Your task to perform on an android device: open app "WhatsApp Messenger" Image 0: 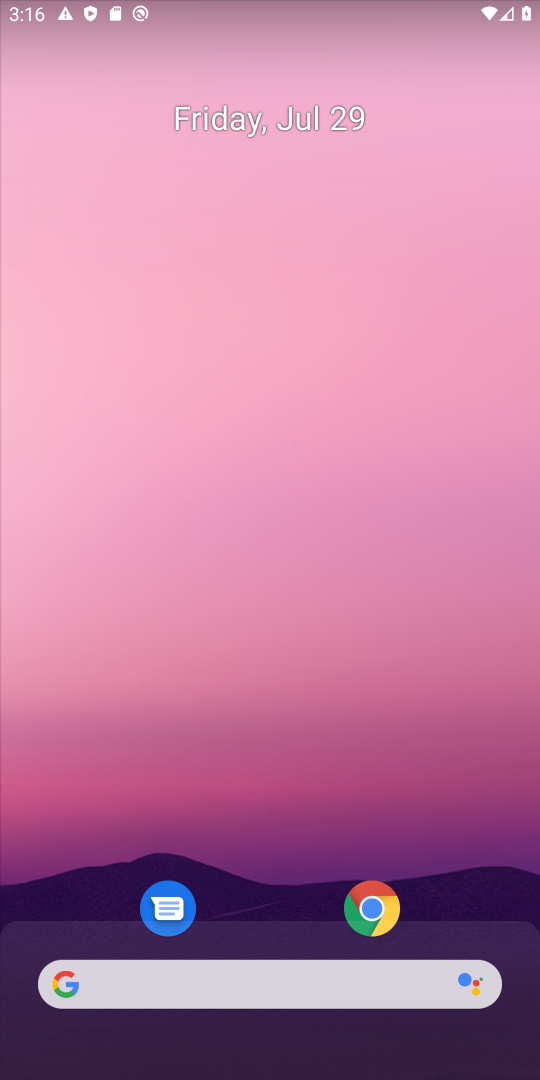
Step 0: drag from (281, 996) to (223, 268)
Your task to perform on an android device: open app "WhatsApp Messenger" Image 1: 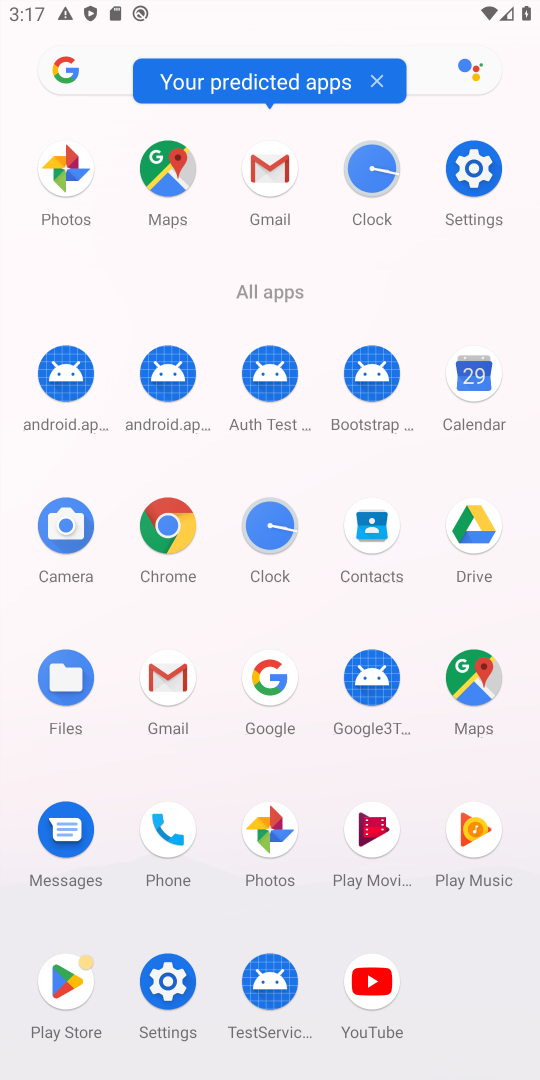
Step 1: click (50, 997)
Your task to perform on an android device: open app "WhatsApp Messenger" Image 2: 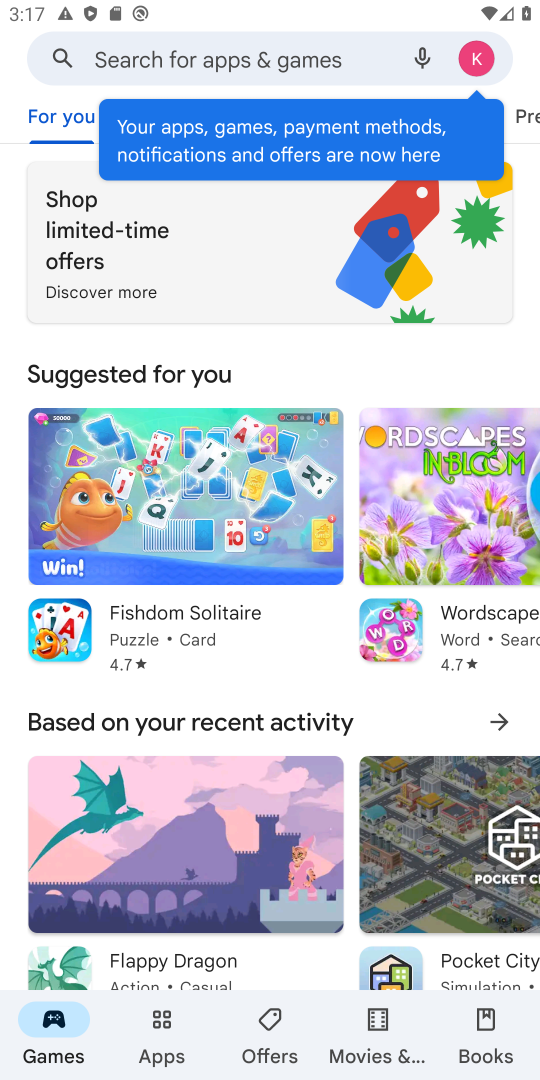
Step 2: click (292, 60)
Your task to perform on an android device: open app "WhatsApp Messenger" Image 3: 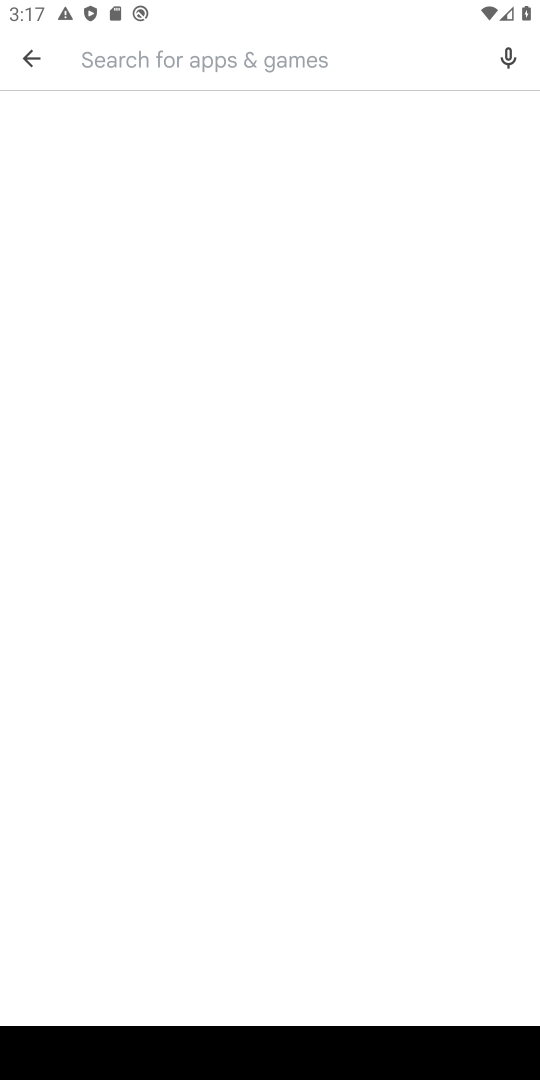
Step 3: type "WhatsApp Messenger"
Your task to perform on an android device: open app "WhatsApp Messenger" Image 4: 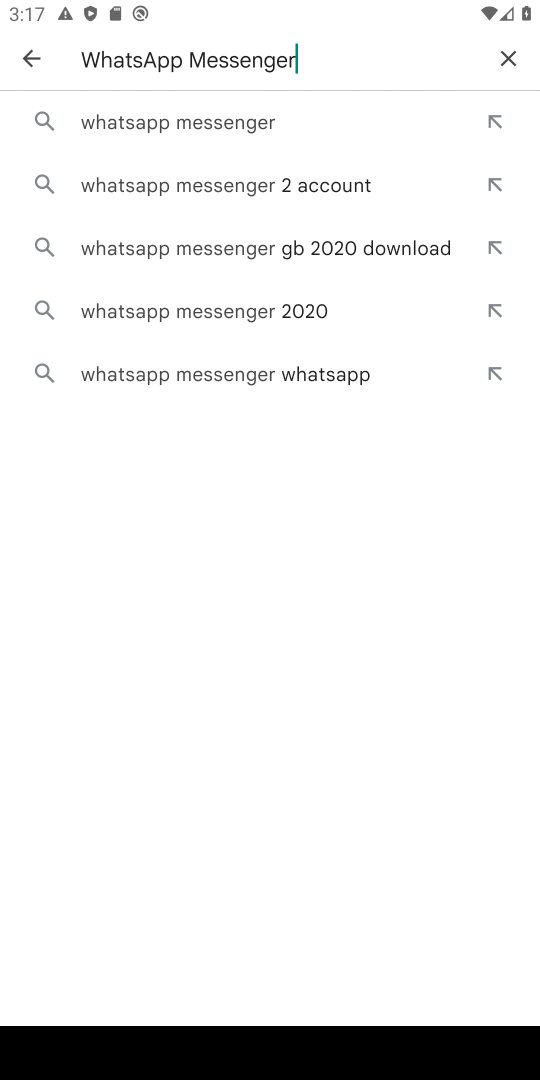
Step 4: click (217, 116)
Your task to perform on an android device: open app "WhatsApp Messenger" Image 5: 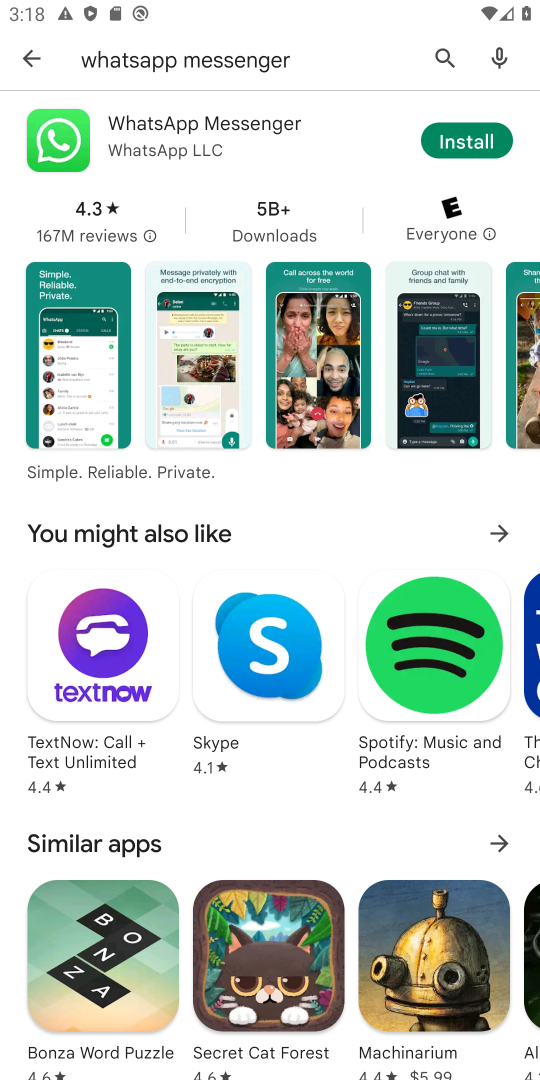
Step 5: task complete